Your task to perform on an android device: see creations saved in the google photos Image 0: 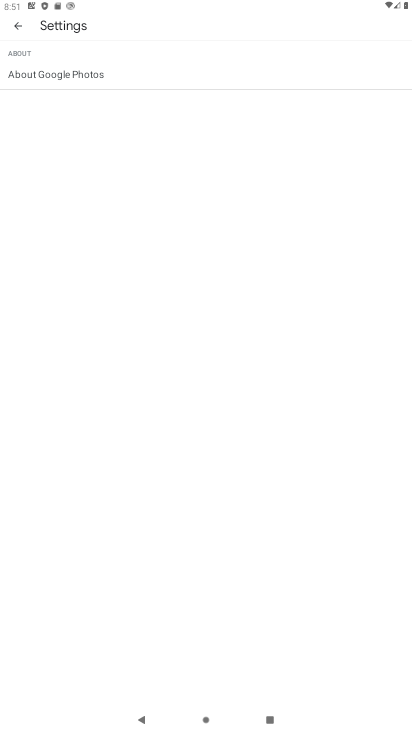
Step 0: click (15, 25)
Your task to perform on an android device: see creations saved in the google photos Image 1: 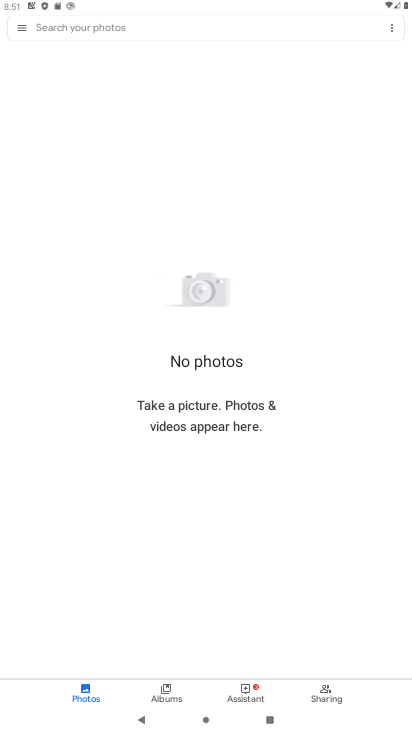
Step 1: click (131, 23)
Your task to perform on an android device: see creations saved in the google photos Image 2: 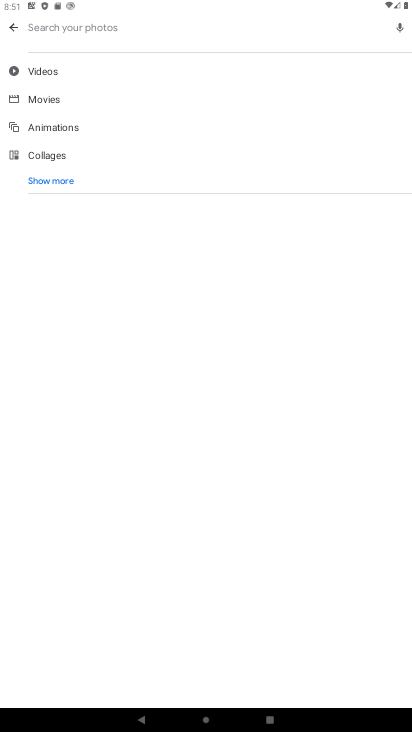
Step 2: click (44, 175)
Your task to perform on an android device: see creations saved in the google photos Image 3: 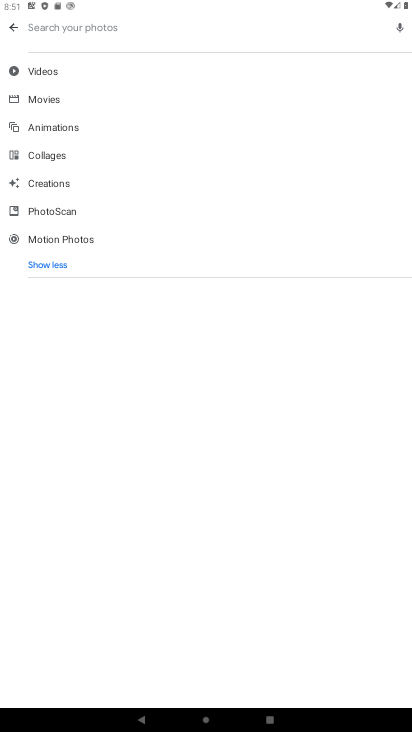
Step 3: click (56, 182)
Your task to perform on an android device: see creations saved in the google photos Image 4: 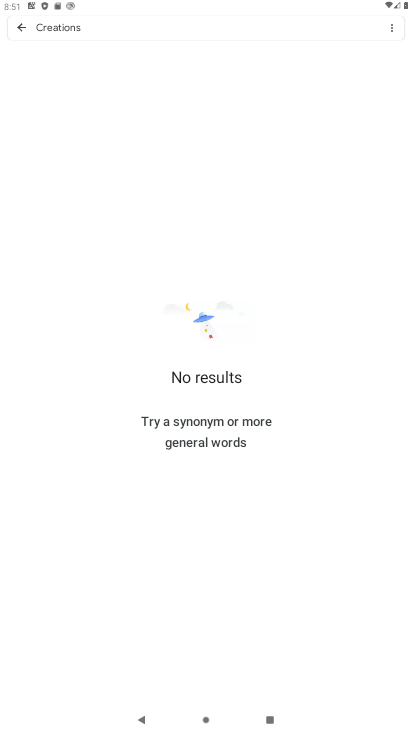
Step 4: task complete